Your task to perform on an android device: remove spam from my inbox in the gmail app Image 0: 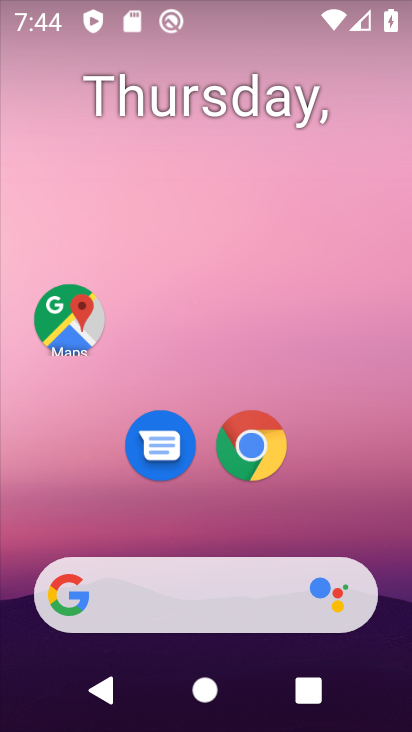
Step 0: drag from (345, 472) to (391, 12)
Your task to perform on an android device: remove spam from my inbox in the gmail app Image 1: 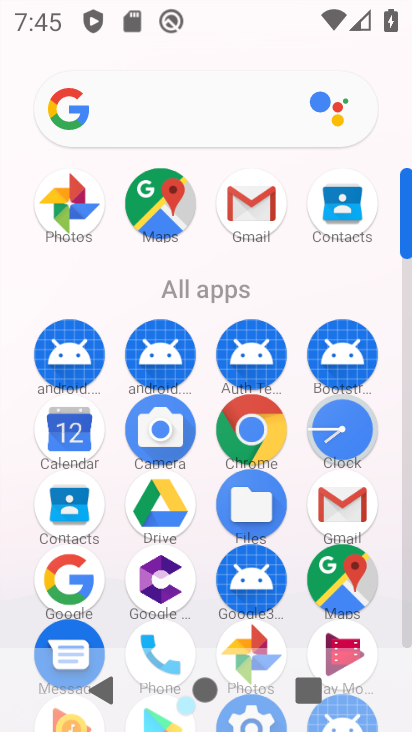
Step 1: click (249, 215)
Your task to perform on an android device: remove spam from my inbox in the gmail app Image 2: 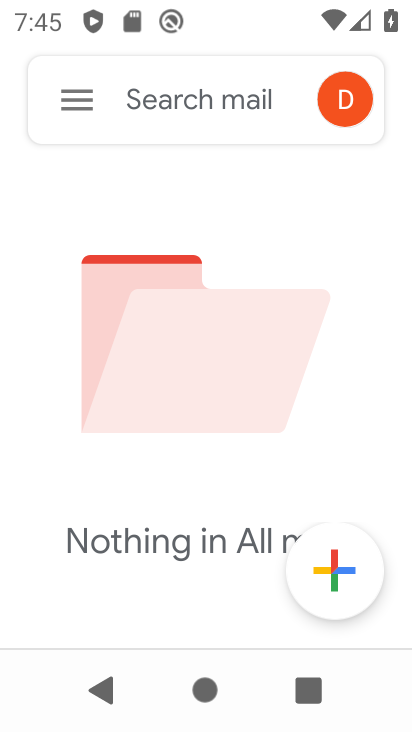
Step 2: click (61, 104)
Your task to perform on an android device: remove spam from my inbox in the gmail app Image 3: 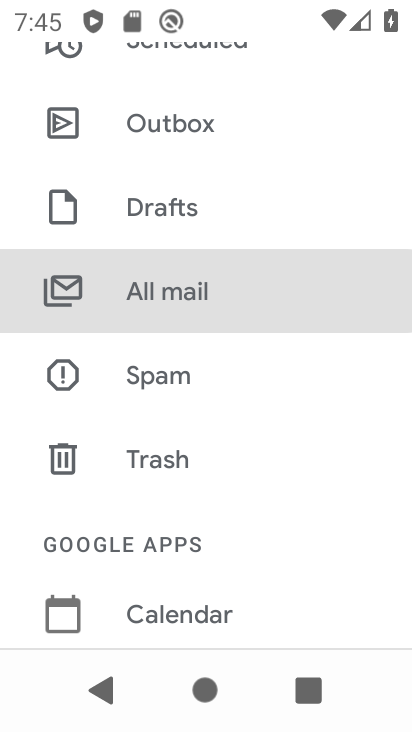
Step 3: click (126, 378)
Your task to perform on an android device: remove spam from my inbox in the gmail app Image 4: 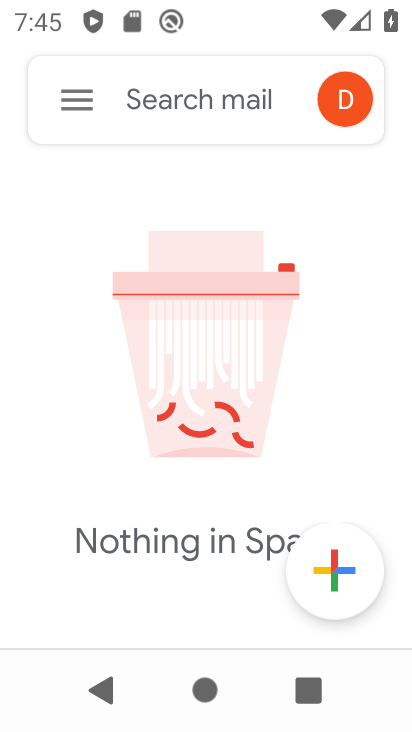
Step 4: task complete